Your task to perform on an android device: Show me the alarms in the clock app Image 0: 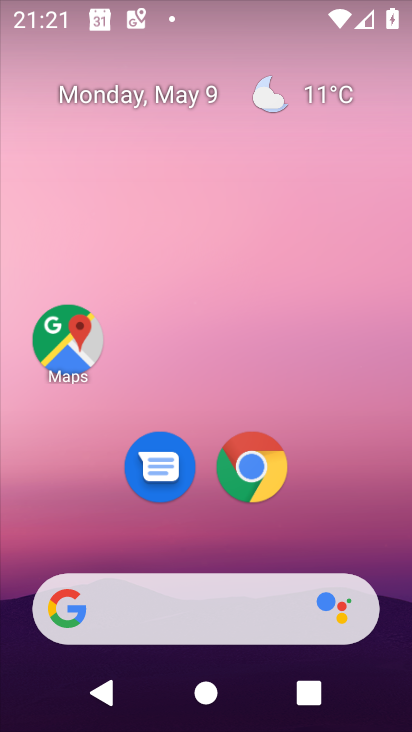
Step 0: drag from (313, 532) to (341, 289)
Your task to perform on an android device: Show me the alarms in the clock app Image 1: 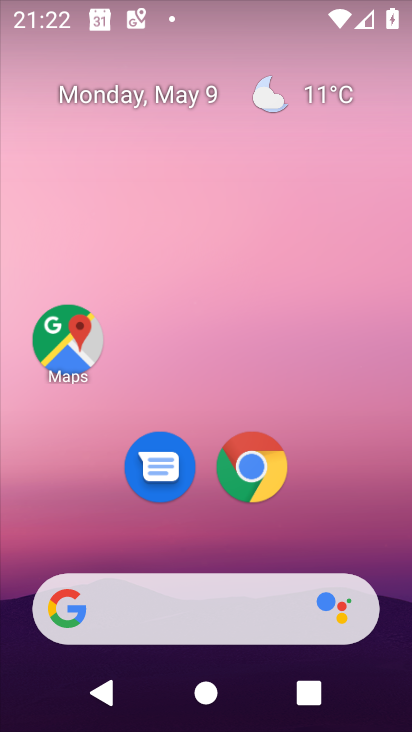
Step 1: drag from (334, 284) to (334, 131)
Your task to perform on an android device: Show me the alarms in the clock app Image 2: 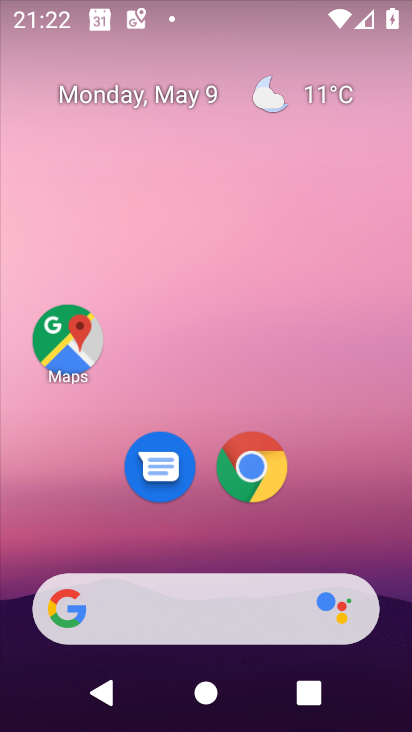
Step 2: drag from (355, 457) to (338, 240)
Your task to perform on an android device: Show me the alarms in the clock app Image 3: 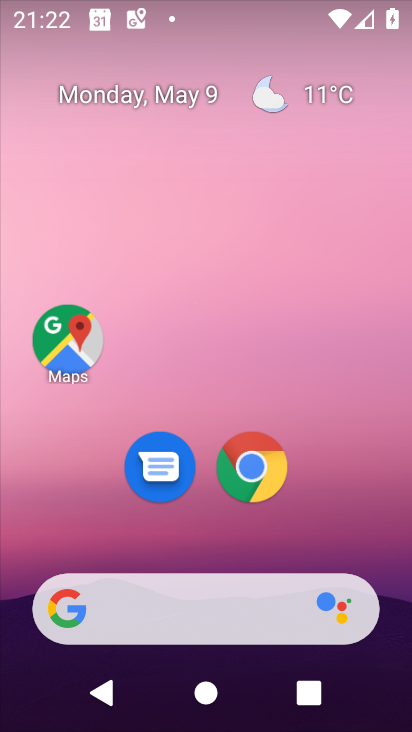
Step 3: drag from (310, 540) to (327, 152)
Your task to perform on an android device: Show me the alarms in the clock app Image 4: 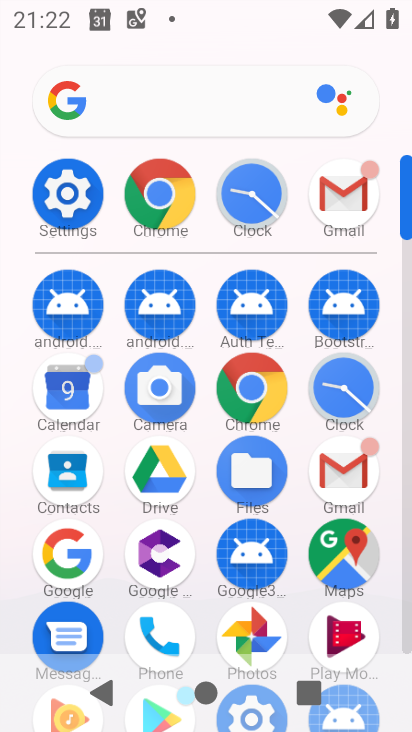
Step 4: click (339, 388)
Your task to perform on an android device: Show me the alarms in the clock app Image 5: 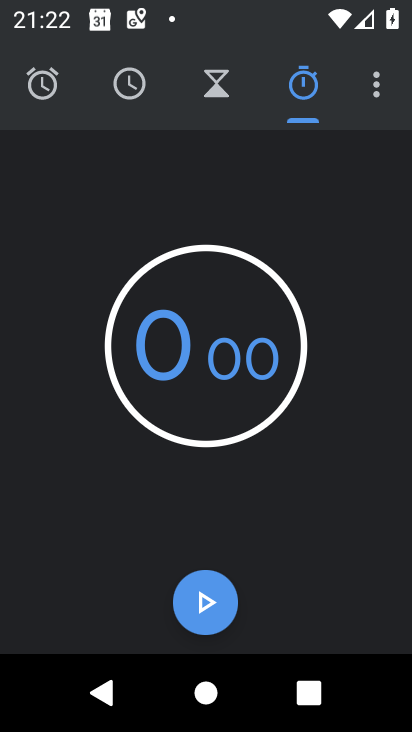
Step 5: click (55, 91)
Your task to perform on an android device: Show me the alarms in the clock app Image 6: 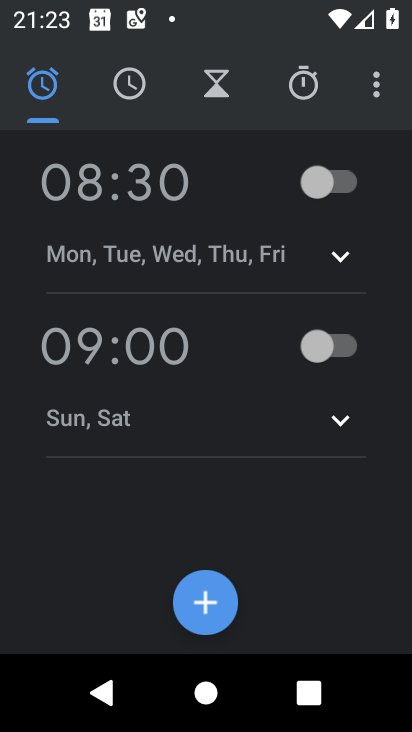
Step 6: task complete